Your task to perform on an android device: turn on airplane mode Image 0: 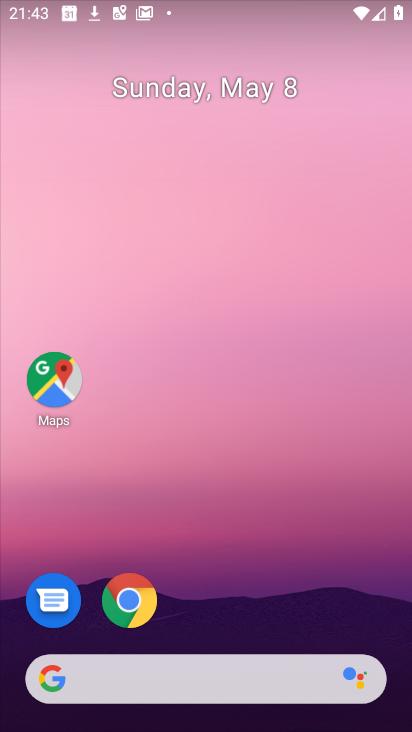
Step 0: drag from (290, 695) to (350, 132)
Your task to perform on an android device: turn on airplane mode Image 1: 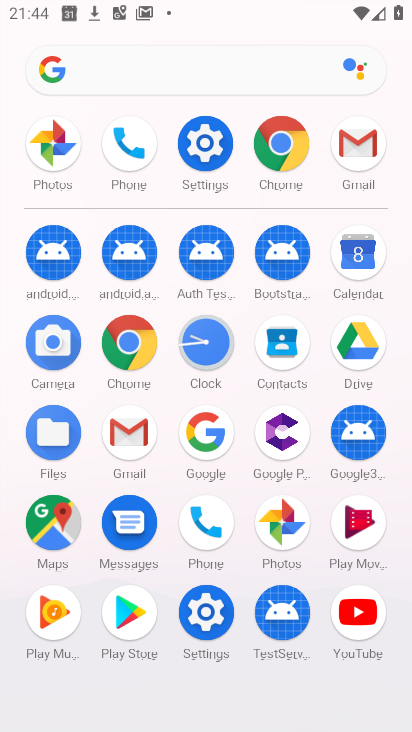
Step 1: click (202, 154)
Your task to perform on an android device: turn on airplane mode Image 2: 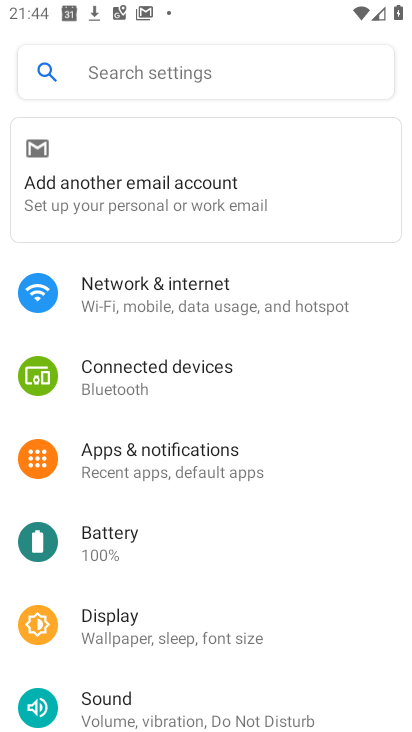
Step 2: click (182, 300)
Your task to perform on an android device: turn on airplane mode Image 3: 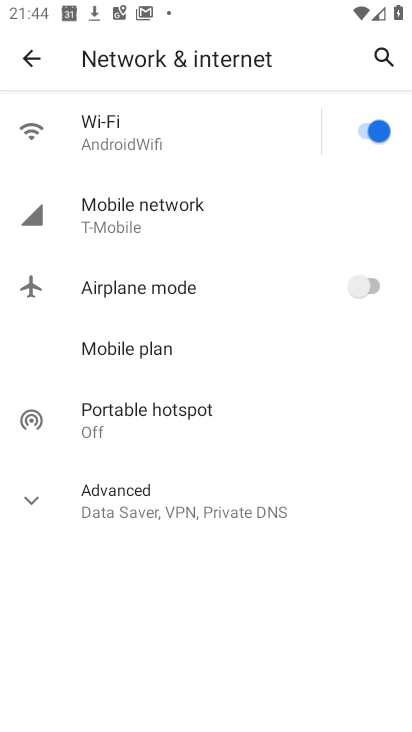
Step 3: click (232, 290)
Your task to perform on an android device: turn on airplane mode Image 4: 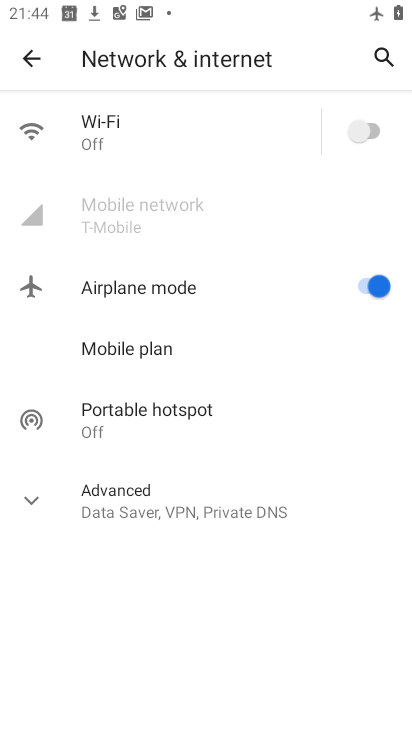
Step 4: task complete